Your task to perform on an android device: change notification settings in the gmail app Image 0: 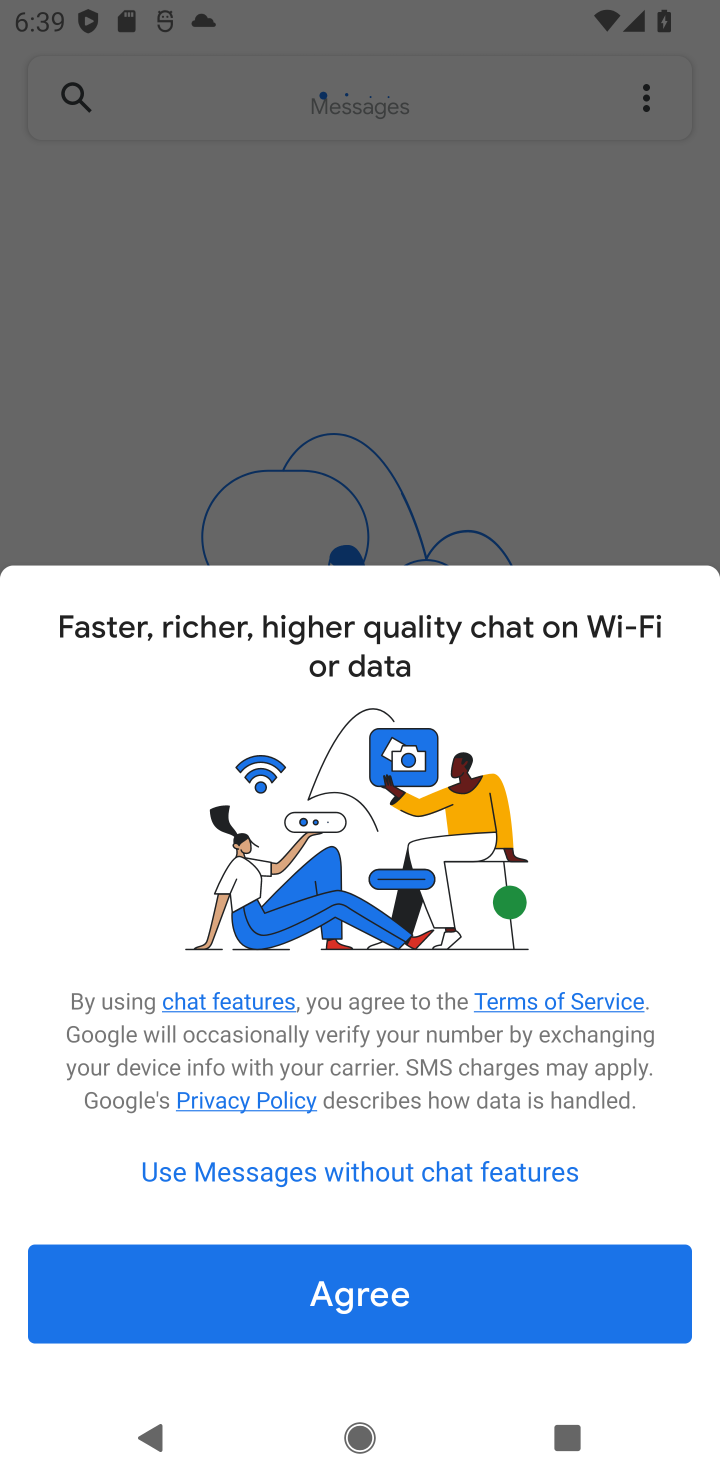
Step 0: press home button
Your task to perform on an android device: change notification settings in the gmail app Image 1: 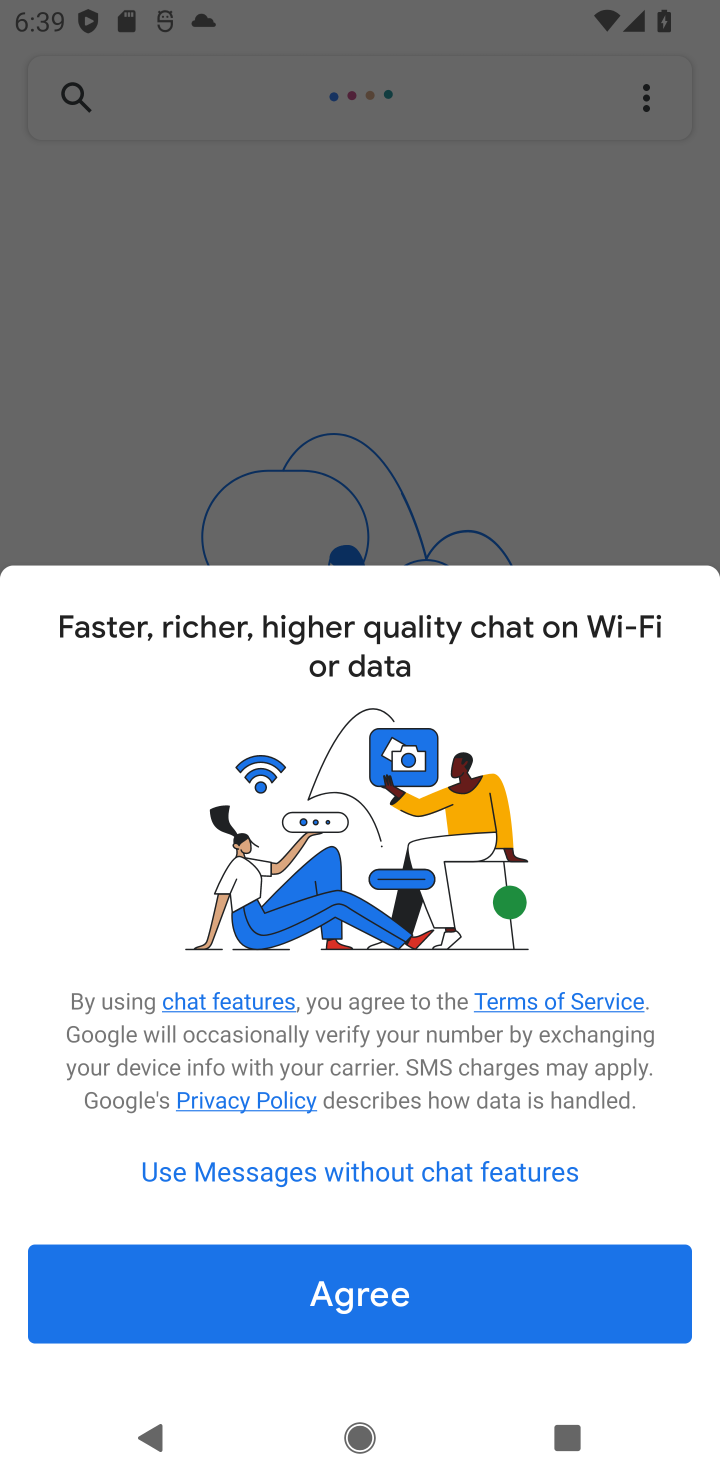
Step 1: press home button
Your task to perform on an android device: change notification settings in the gmail app Image 2: 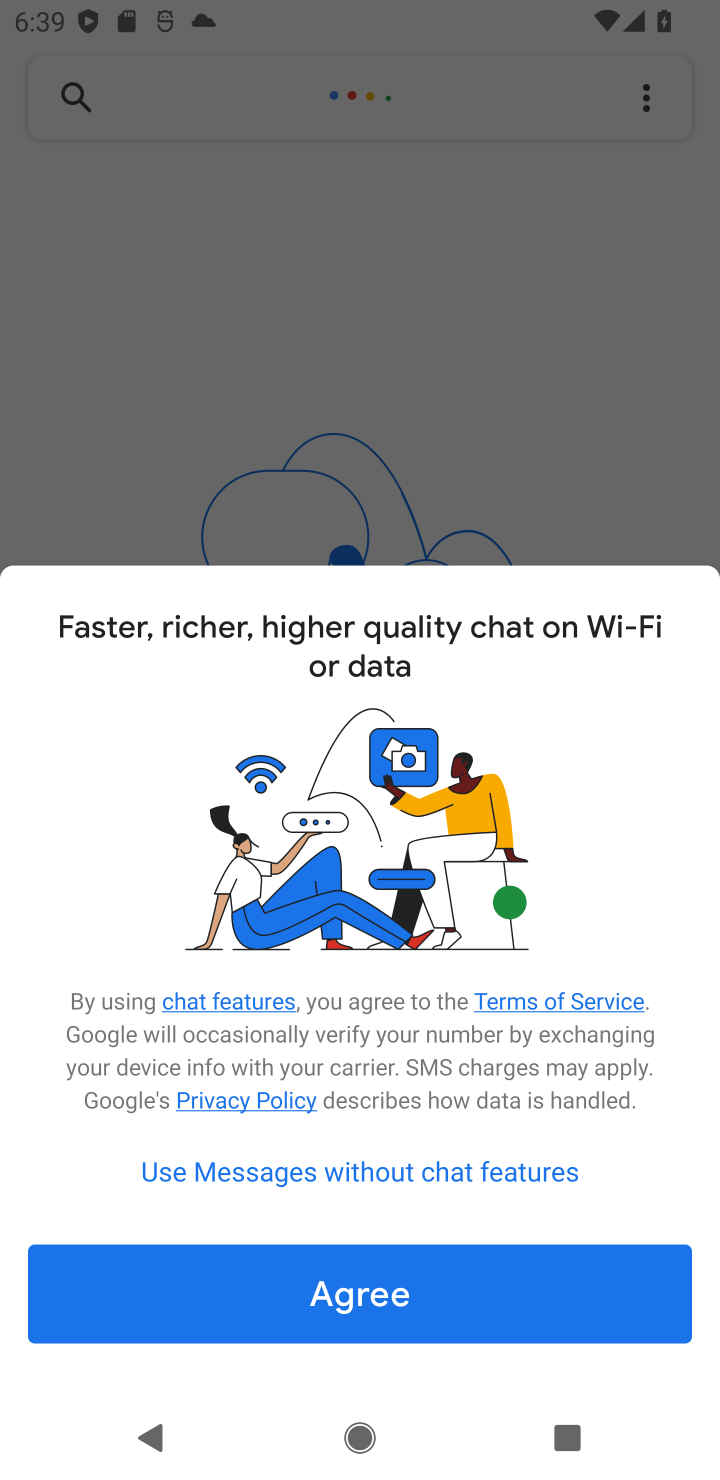
Step 2: press home button
Your task to perform on an android device: change notification settings in the gmail app Image 3: 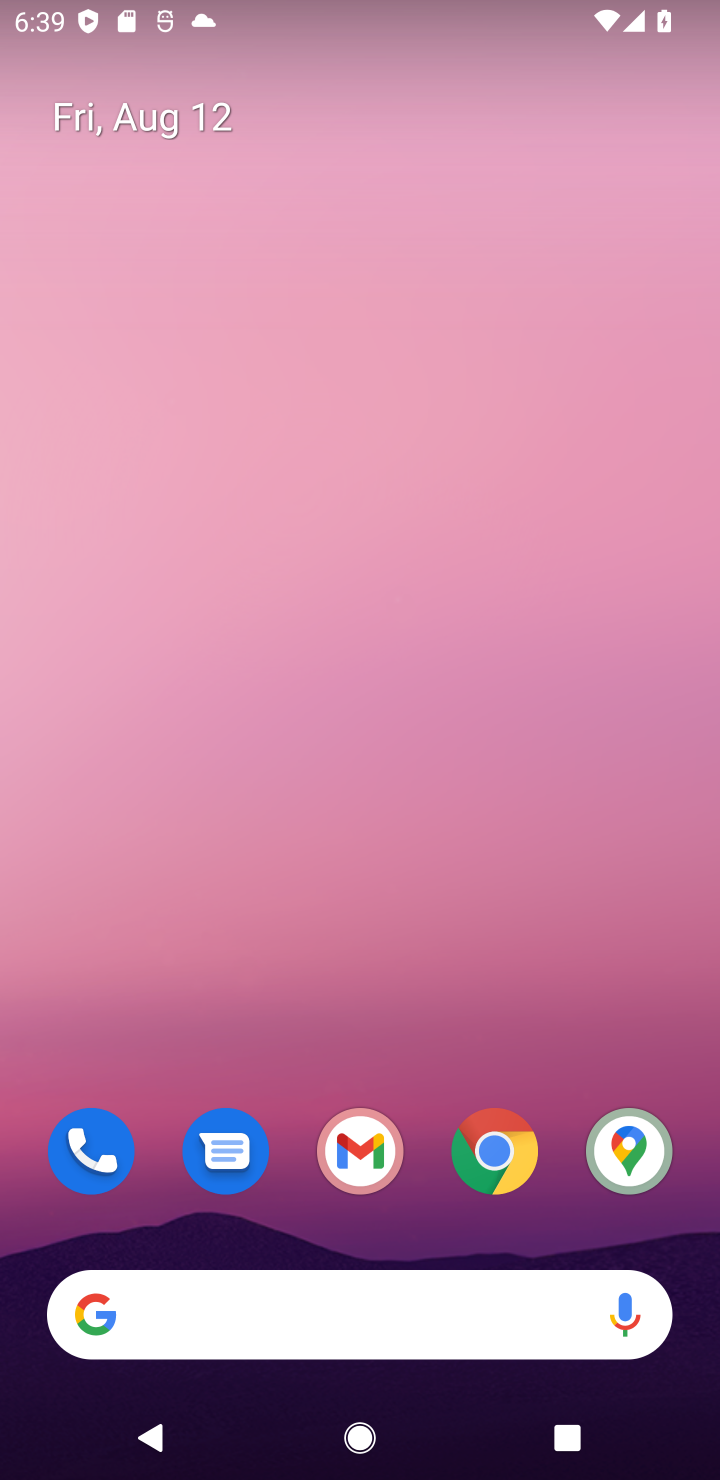
Step 3: drag from (513, 946) to (494, 238)
Your task to perform on an android device: change notification settings in the gmail app Image 4: 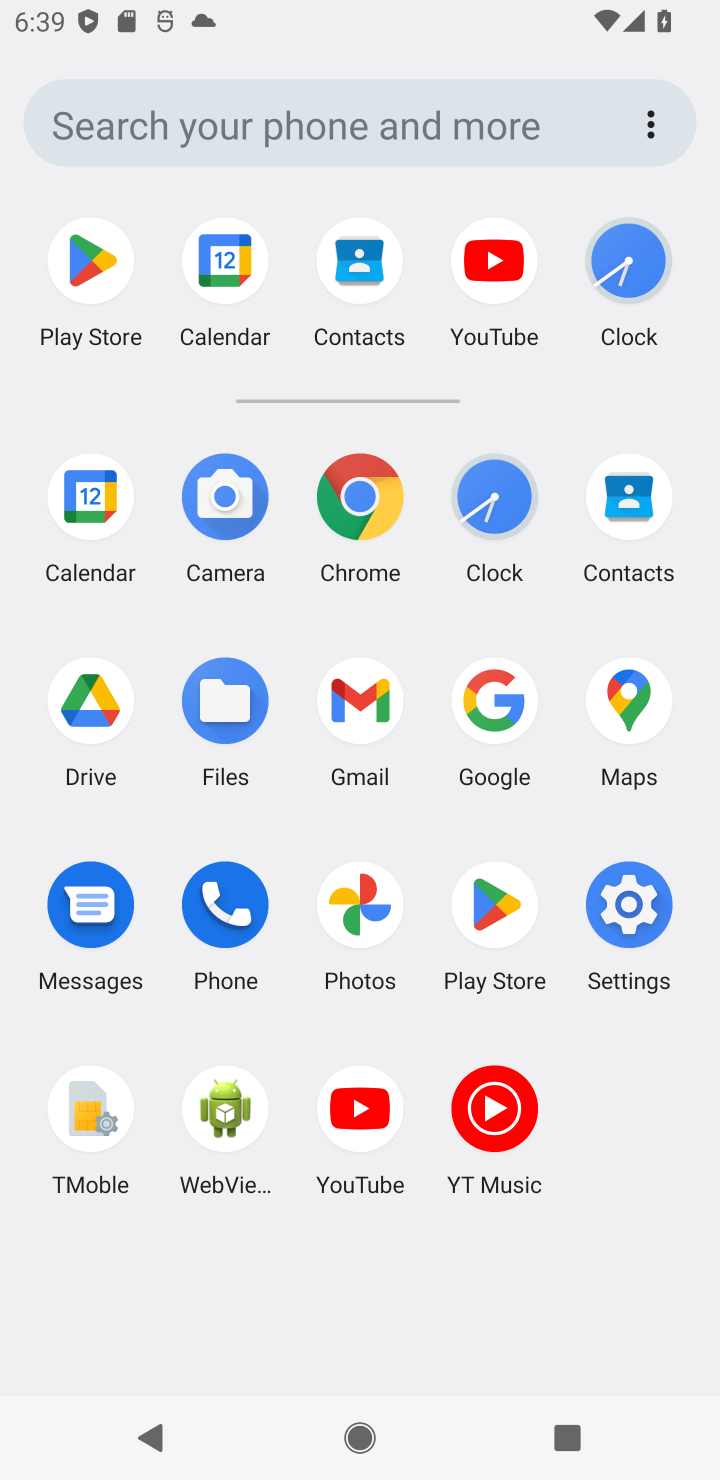
Step 4: click (368, 706)
Your task to perform on an android device: change notification settings in the gmail app Image 5: 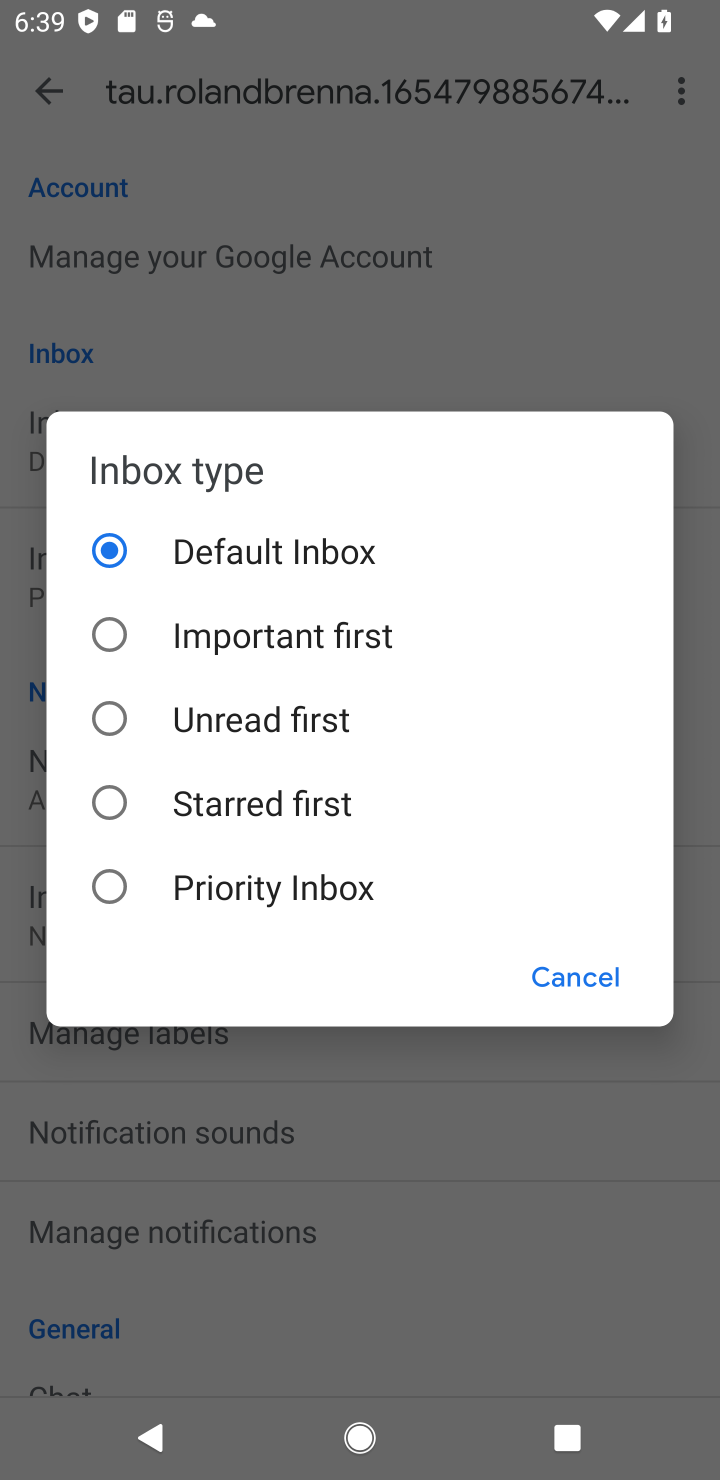
Step 5: click (617, 977)
Your task to perform on an android device: change notification settings in the gmail app Image 6: 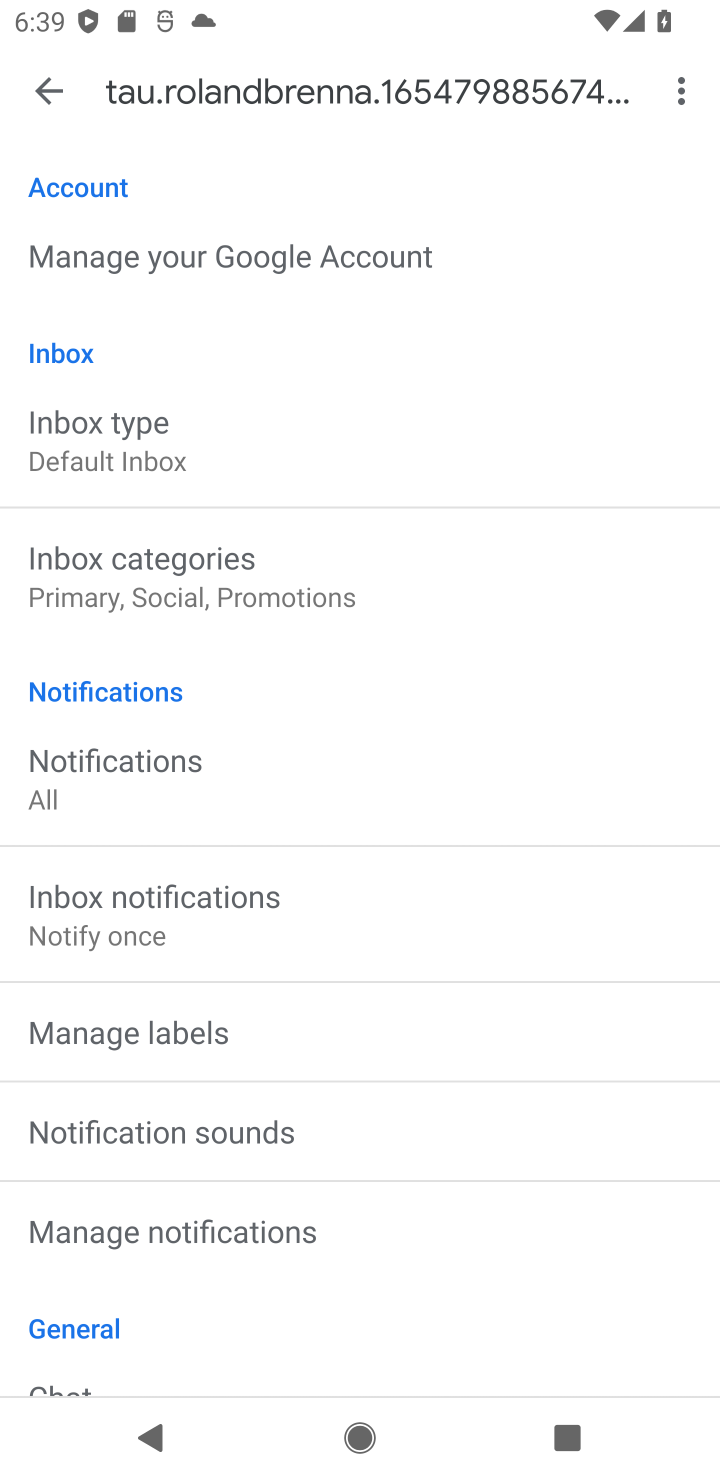
Step 6: click (195, 1231)
Your task to perform on an android device: change notification settings in the gmail app Image 7: 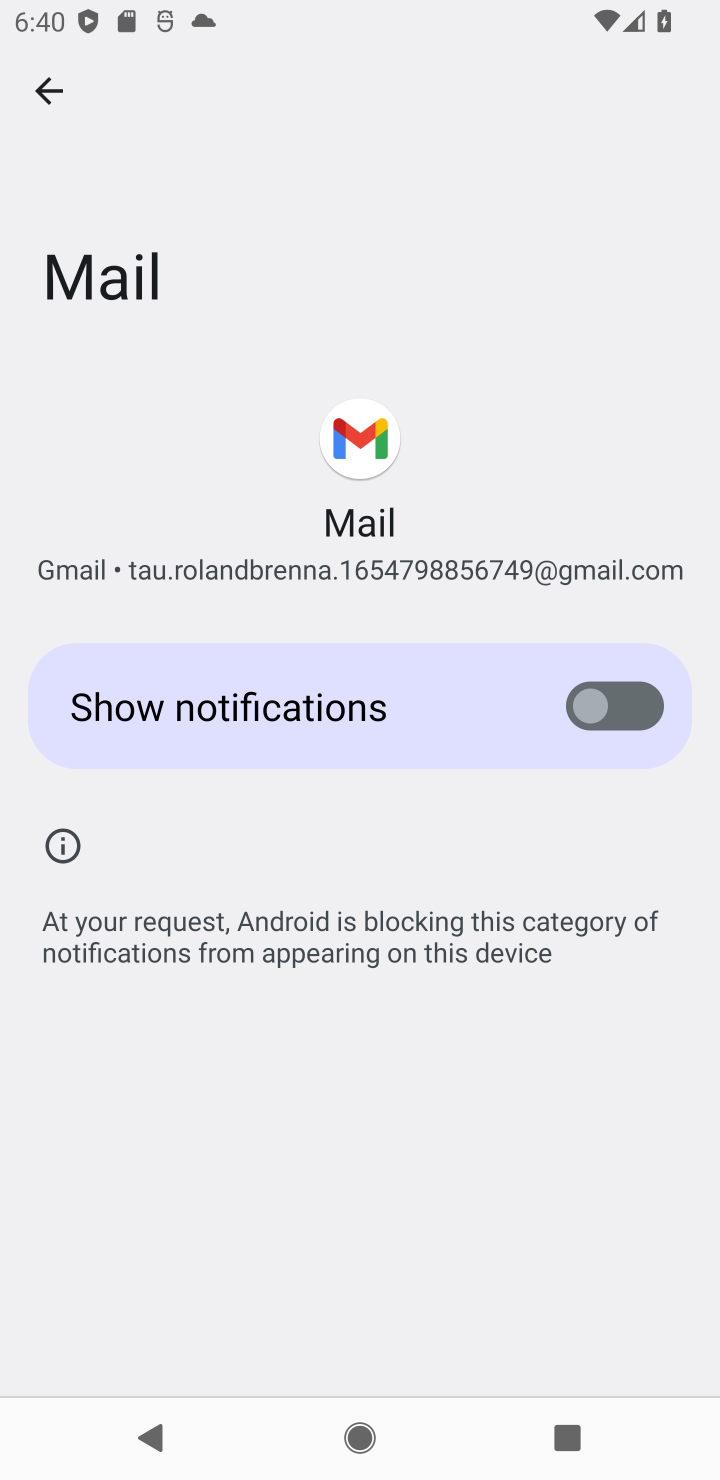
Step 7: click (607, 676)
Your task to perform on an android device: change notification settings in the gmail app Image 8: 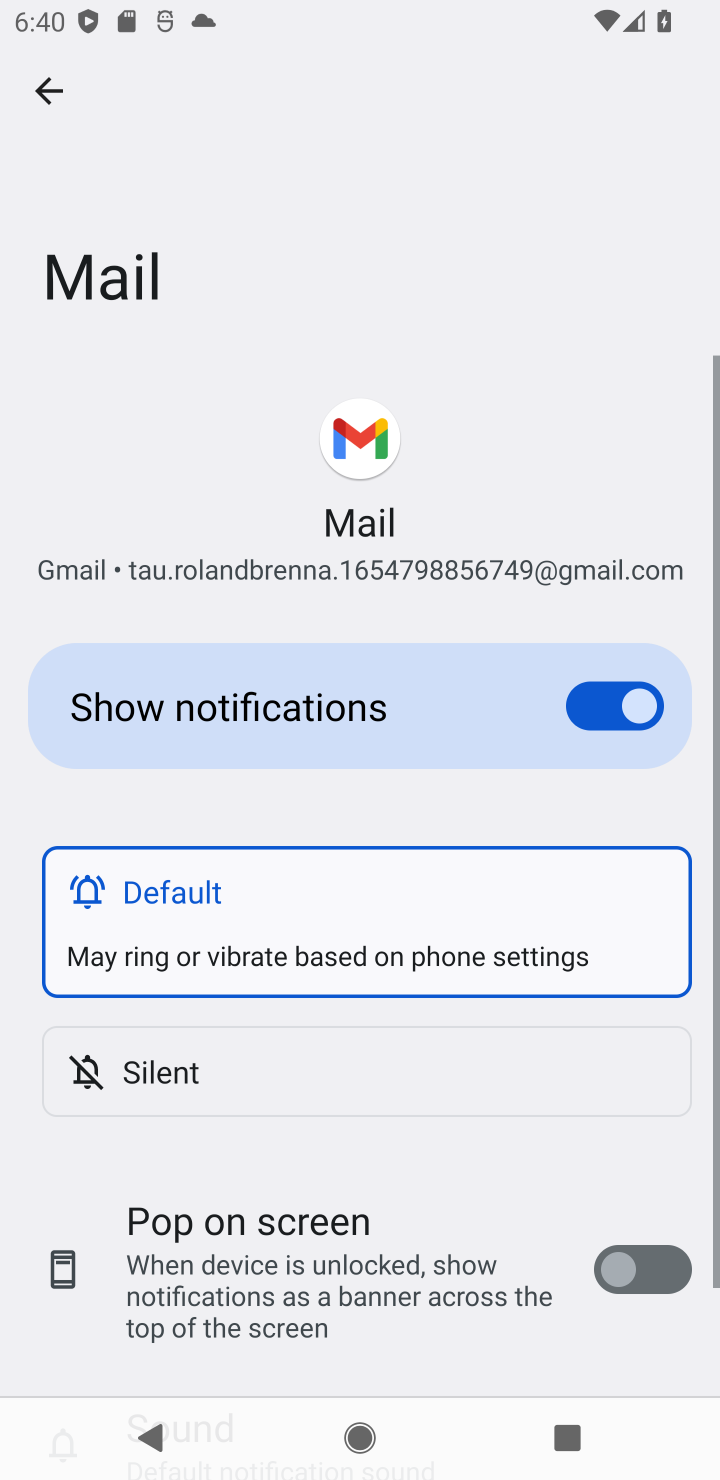
Step 8: task complete